Your task to perform on an android device: Search for pizza restaurants on Maps Image 0: 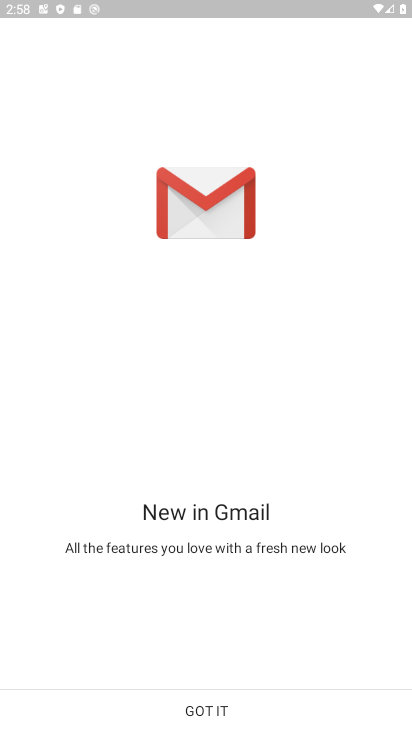
Step 0: press home button
Your task to perform on an android device: Search for pizza restaurants on Maps Image 1: 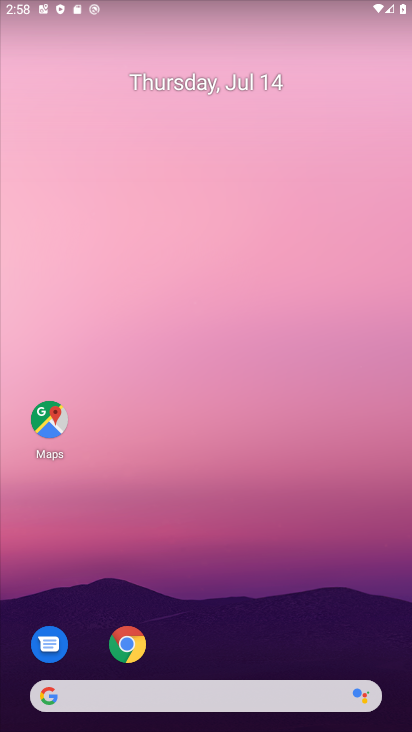
Step 1: drag from (191, 662) to (186, 220)
Your task to perform on an android device: Search for pizza restaurants on Maps Image 2: 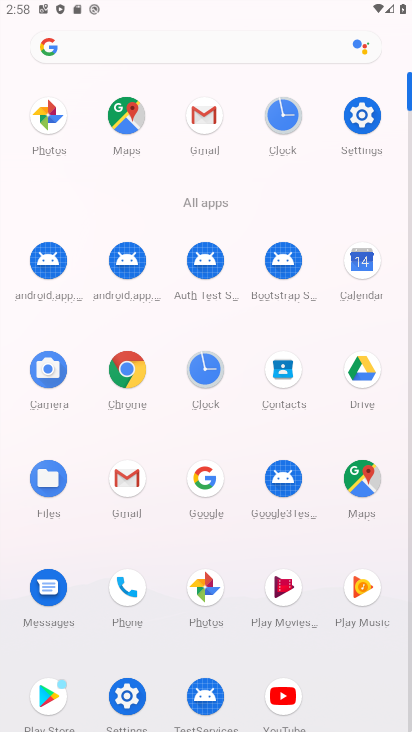
Step 2: click (369, 478)
Your task to perform on an android device: Search for pizza restaurants on Maps Image 3: 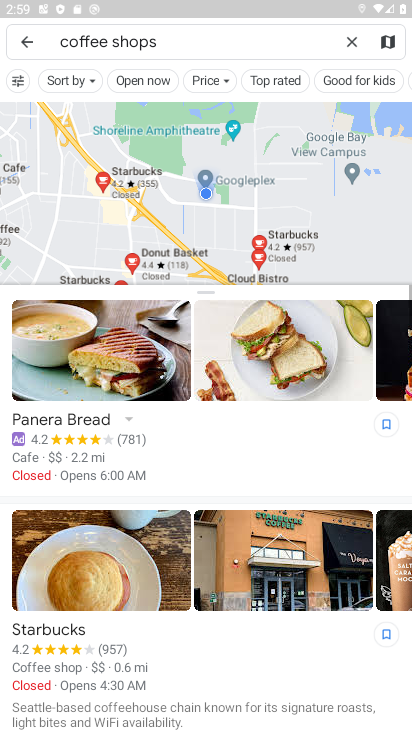
Step 3: click (357, 37)
Your task to perform on an android device: Search for pizza restaurants on Maps Image 4: 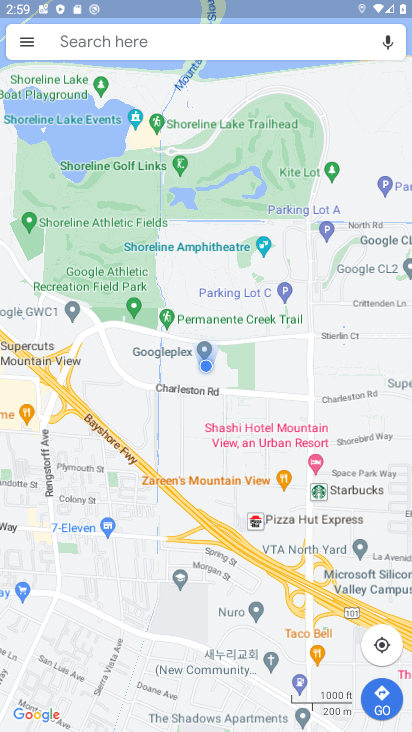
Step 4: click (175, 54)
Your task to perform on an android device: Search for pizza restaurants on Maps Image 5: 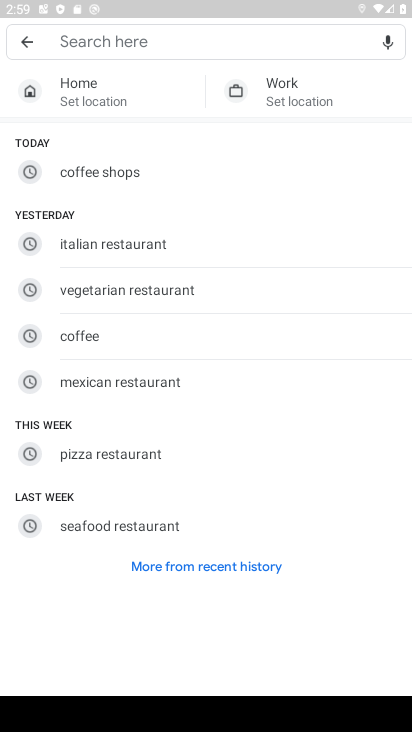
Step 5: type "Pizza restaurants"
Your task to perform on an android device: Search for pizza restaurants on Maps Image 6: 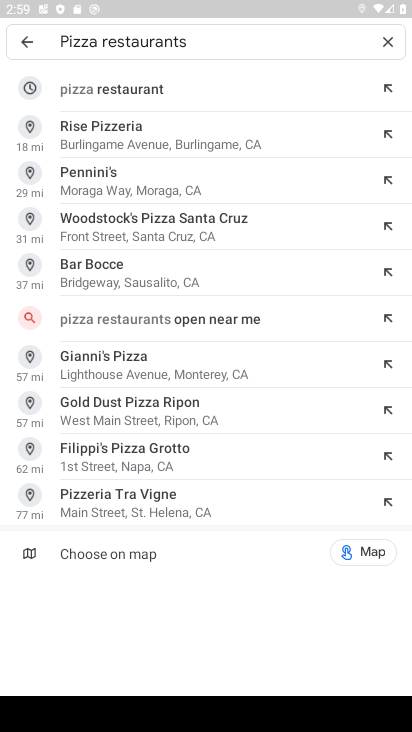
Step 6: click (185, 88)
Your task to perform on an android device: Search for pizza restaurants on Maps Image 7: 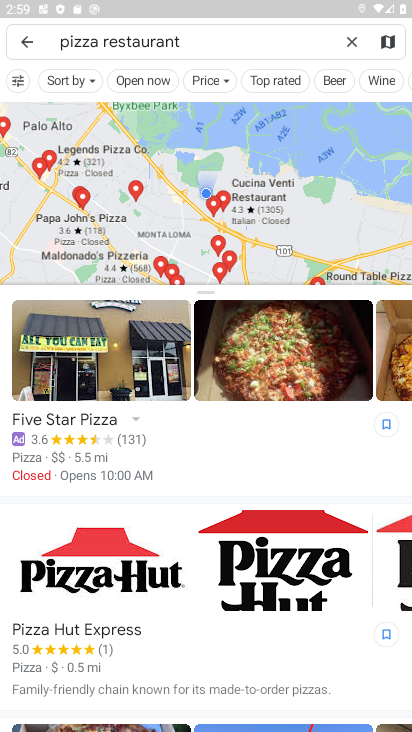
Step 7: task complete